Your task to perform on an android device: turn on sleep mode Image 0: 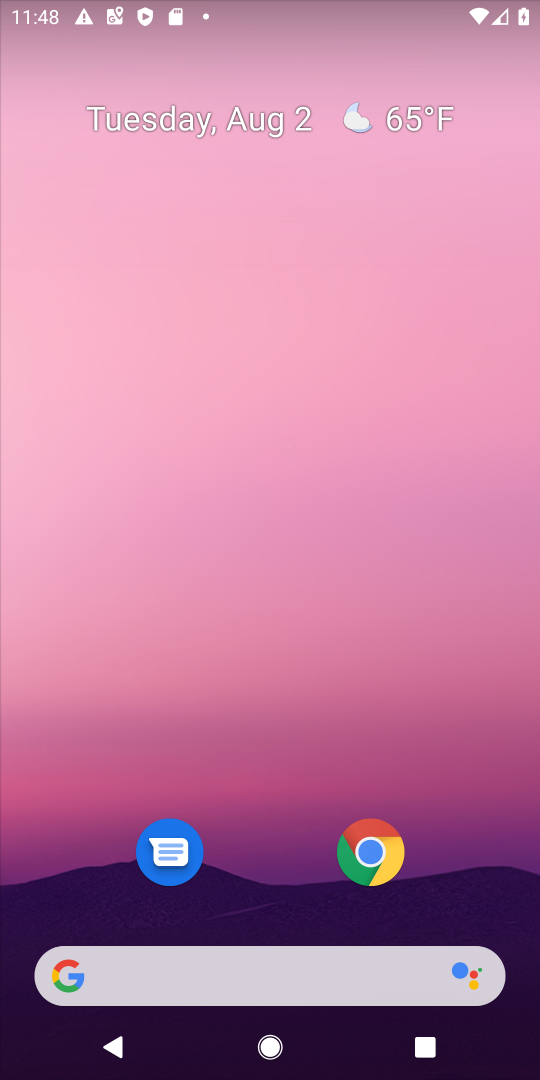
Step 0: drag from (514, 853) to (299, 176)
Your task to perform on an android device: turn on sleep mode Image 1: 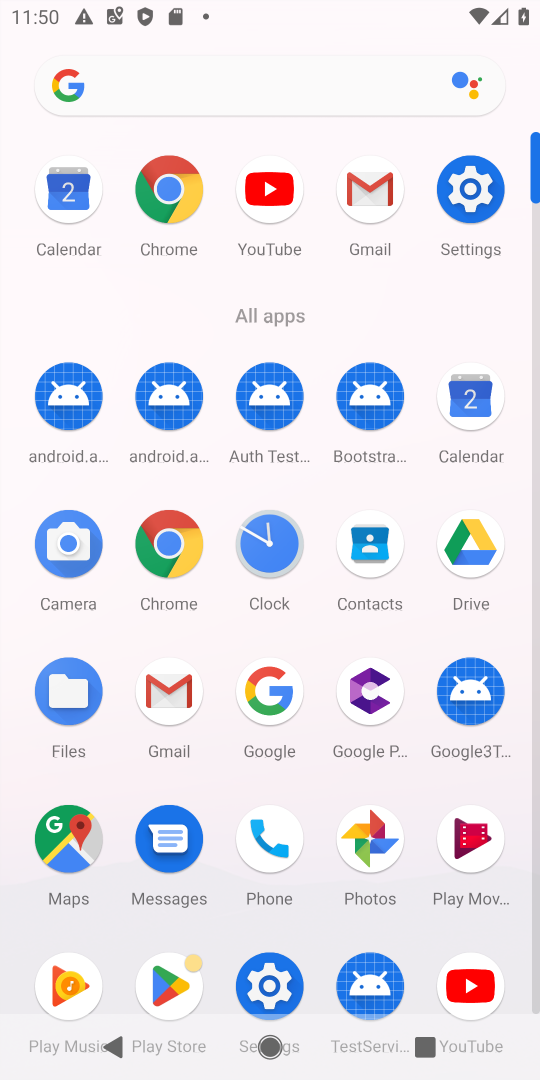
Step 1: click (277, 970)
Your task to perform on an android device: turn on sleep mode Image 2: 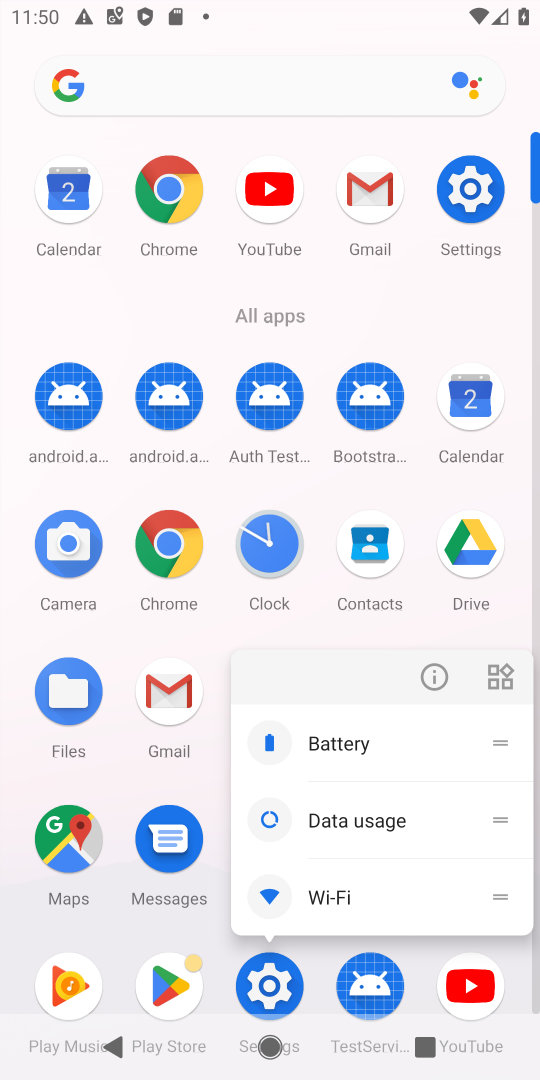
Step 2: click (277, 970)
Your task to perform on an android device: turn on sleep mode Image 3: 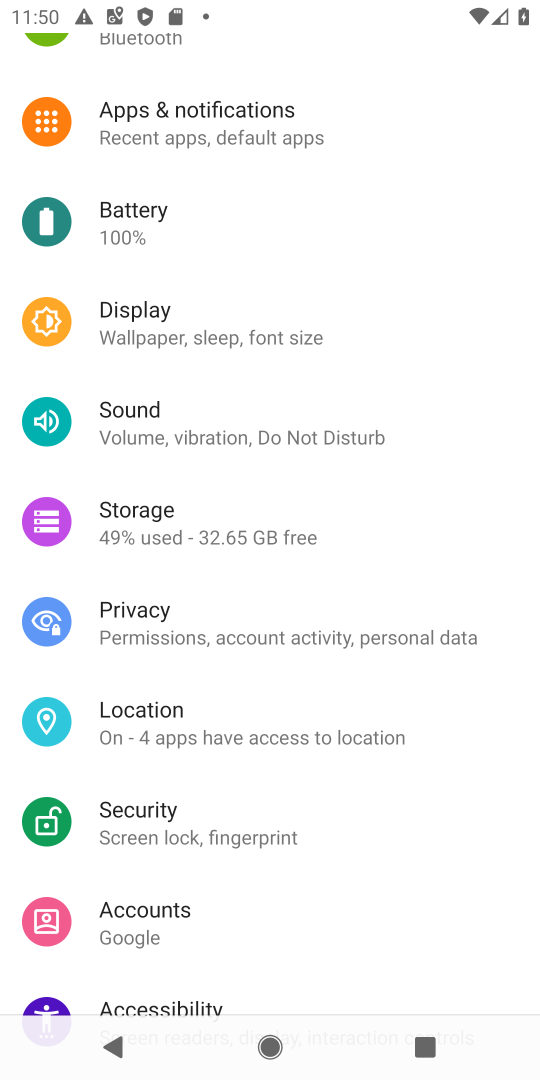
Step 3: task complete